Your task to perform on an android device: Show me popular games on the Play Store Image 0: 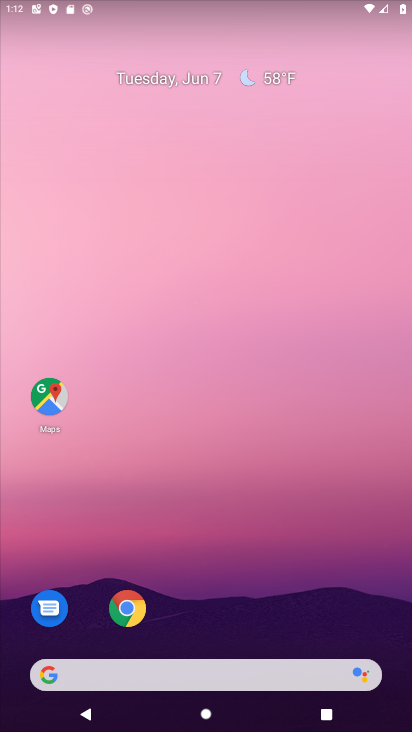
Step 0: drag from (316, 600) to (264, 32)
Your task to perform on an android device: Show me popular games on the Play Store Image 1: 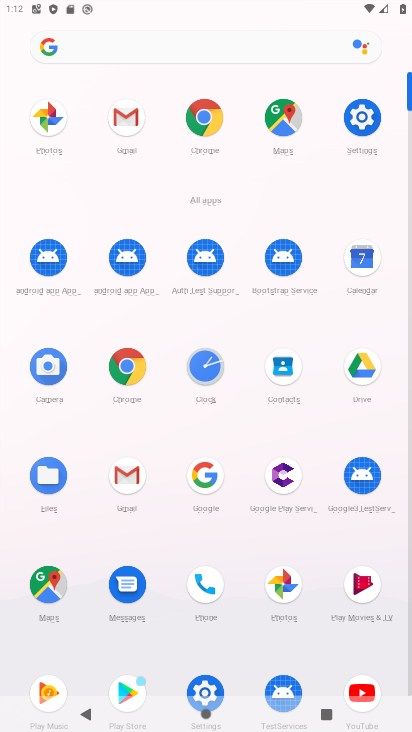
Step 1: click (134, 680)
Your task to perform on an android device: Show me popular games on the Play Store Image 2: 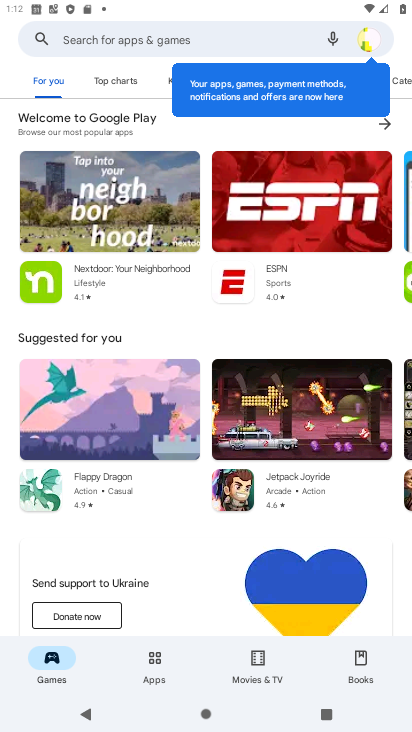
Step 2: task complete